Your task to perform on an android device: turn off wifi Image 0: 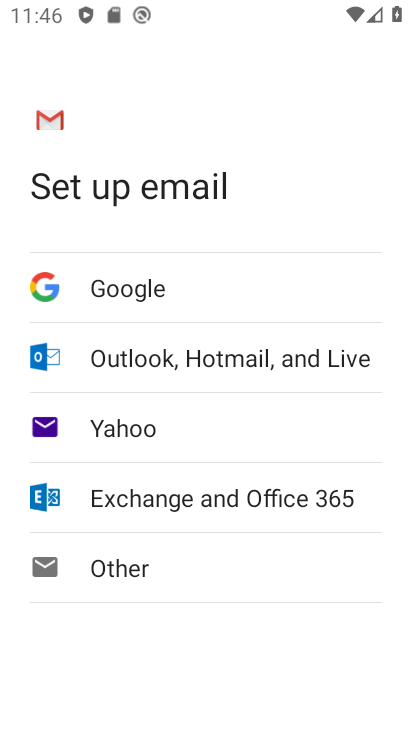
Step 0: press home button
Your task to perform on an android device: turn off wifi Image 1: 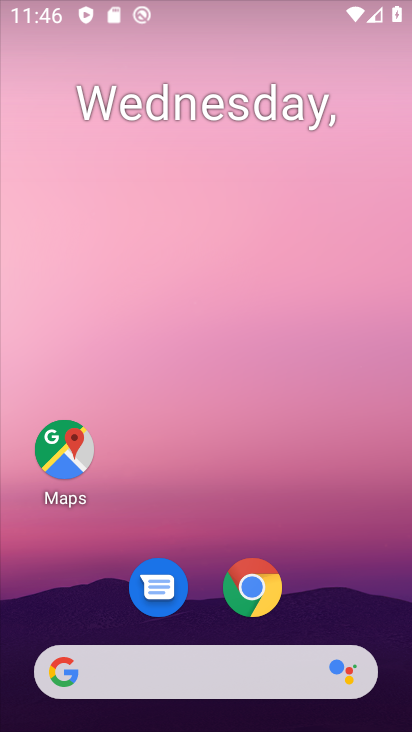
Step 1: drag from (105, 426) to (95, 78)
Your task to perform on an android device: turn off wifi Image 2: 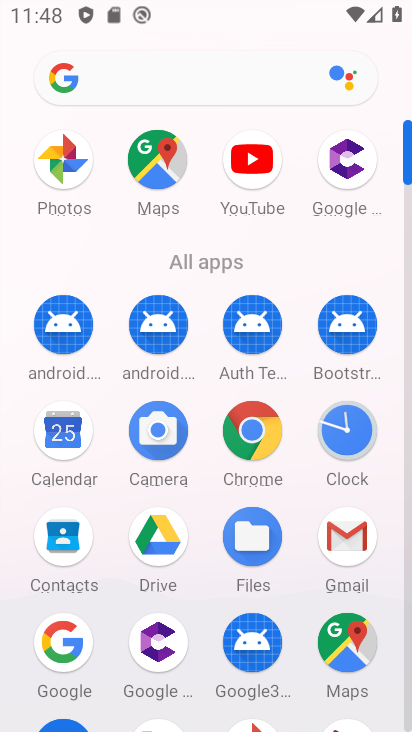
Step 2: press home button
Your task to perform on an android device: turn off wifi Image 3: 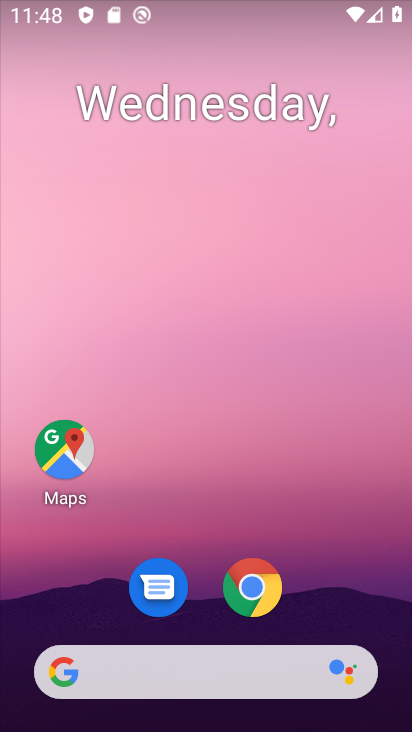
Step 3: drag from (287, 619) to (96, 71)
Your task to perform on an android device: turn off wifi Image 4: 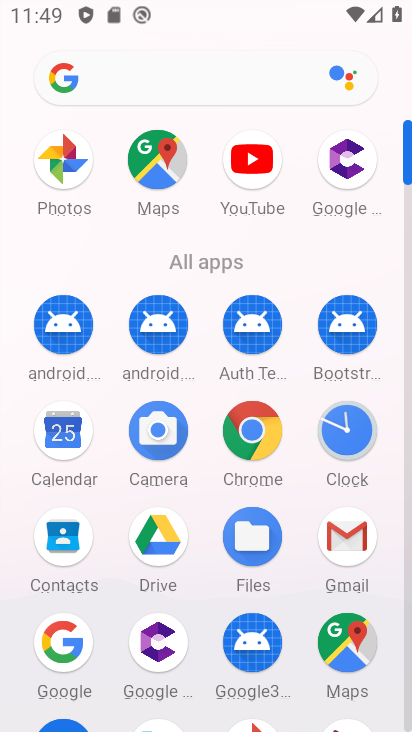
Step 4: drag from (285, 512) to (301, 115)
Your task to perform on an android device: turn off wifi Image 5: 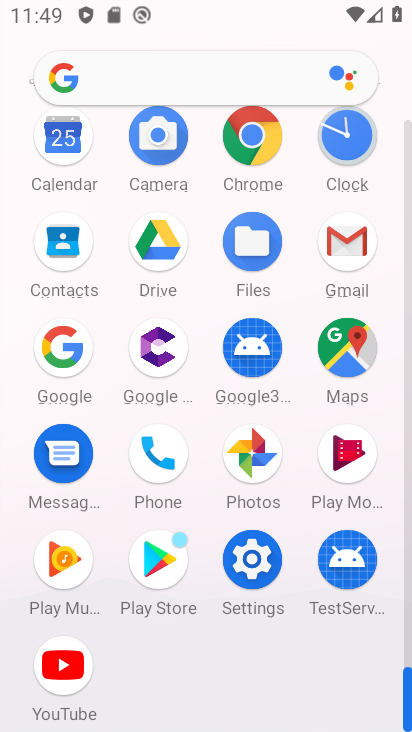
Step 5: click (259, 561)
Your task to perform on an android device: turn off wifi Image 6: 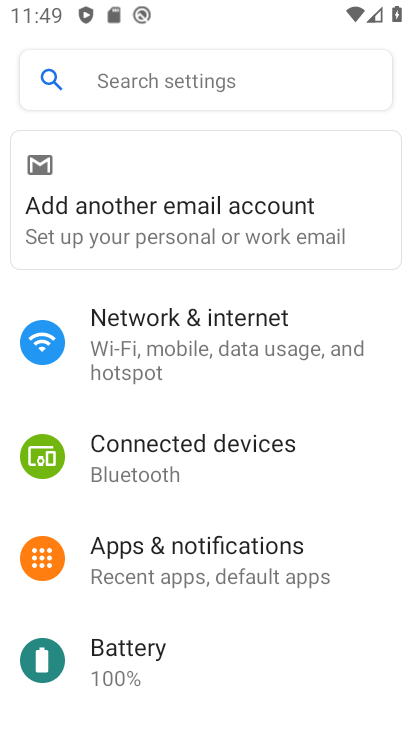
Step 6: click (278, 349)
Your task to perform on an android device: turn off wifi Image 7: 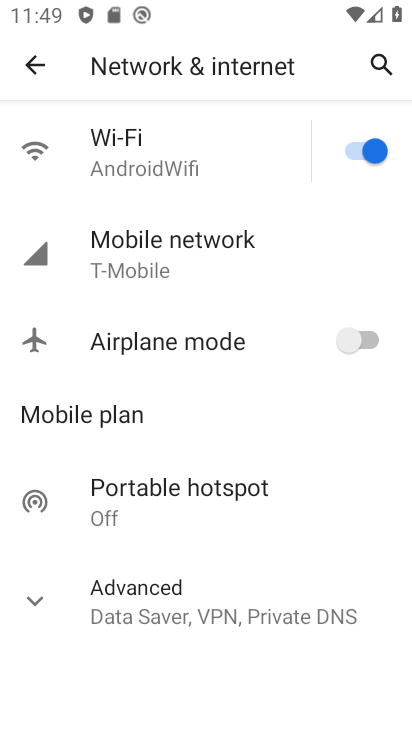
Step 7: click (312, 359)
Your task to perform on an android device: turn off wifi Image 8: 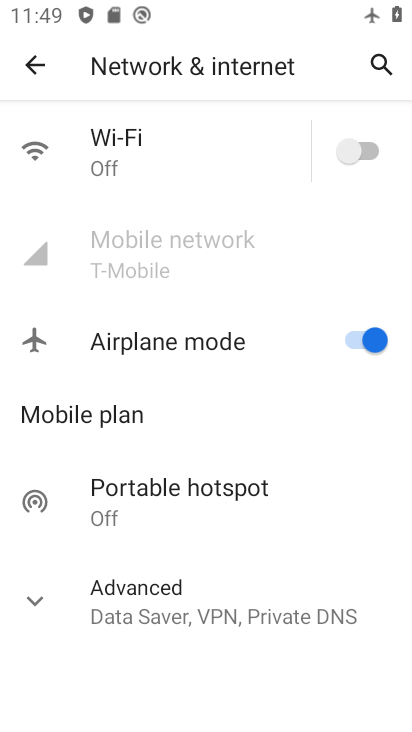
Step 8: task complete